Your task to perform on an android device: Open the stopwatch Image 0: 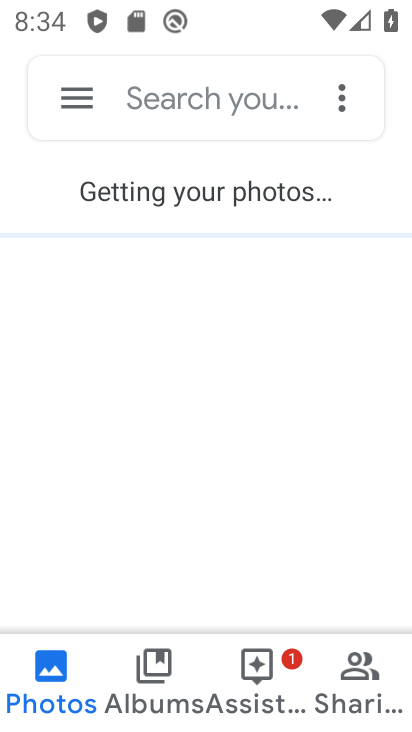
Step 0: press back button
Your task to perform on an android device: Open the stopwatch Image 1: 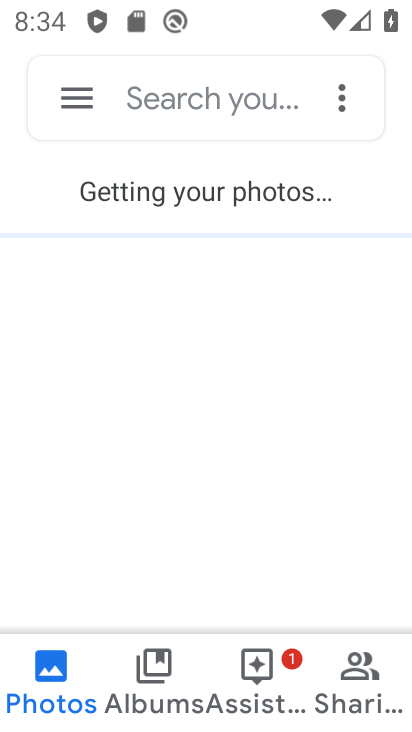
Step 1: press back button
Your task to perform on an android device: Open the stopwatch Image 2: 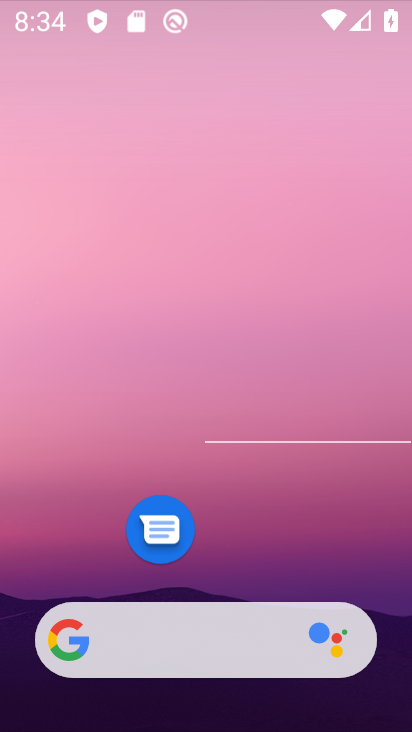
Step 2: press back button
Your task to perform on an android device: Open the stopwatch Image 3: 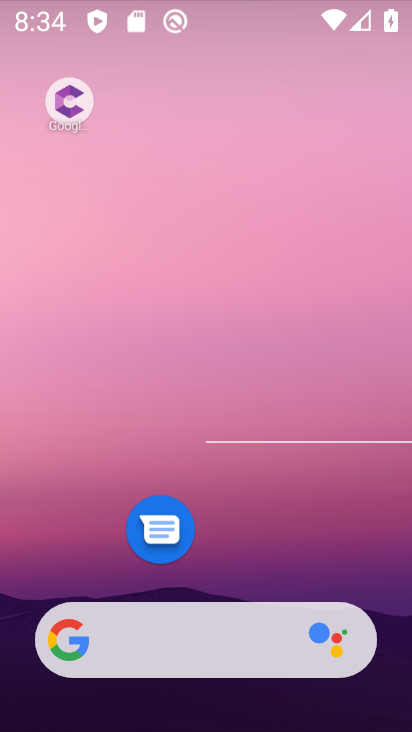
Step 3: click (254, 220)
Your task to perform on an android device: Open the stopwatch Image 4: 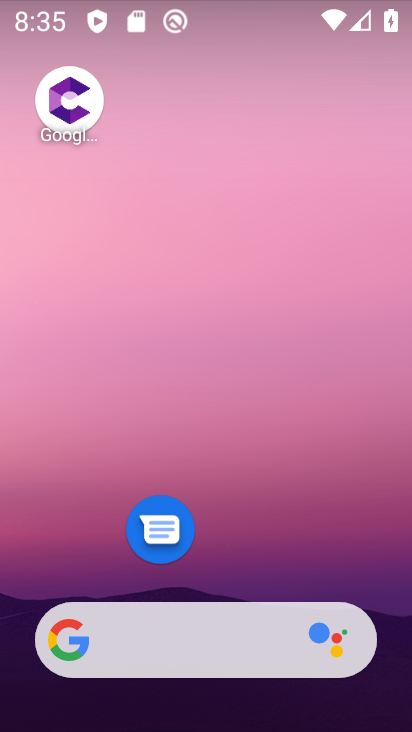
Step 4: drag from (343, 603) to (216, 83)
Your task to perform on an android device: Open the stopwatch Image 5: 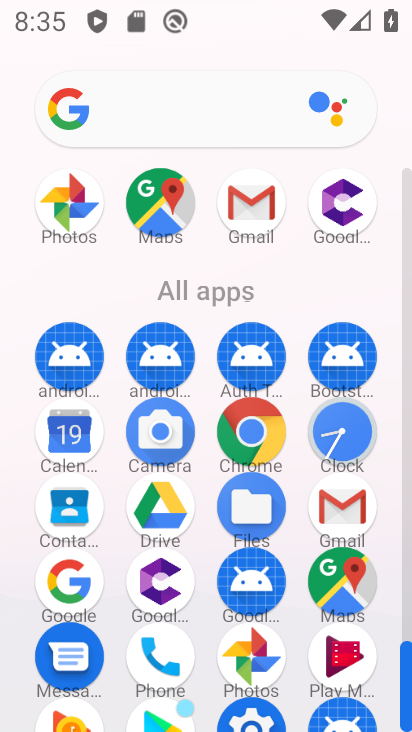
Step 5: click (326, 429)
Your task to perform on an android device: Open the stopwatch Image 6: 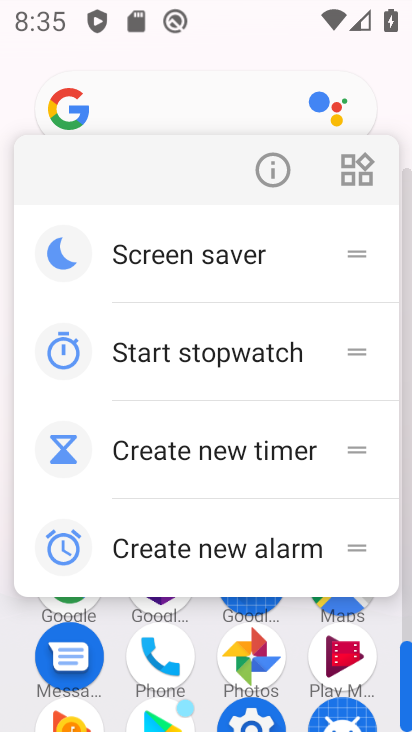
Step 6: click (171, 259)
Your task to perform on an android device: Open the stopwatch Image 7: 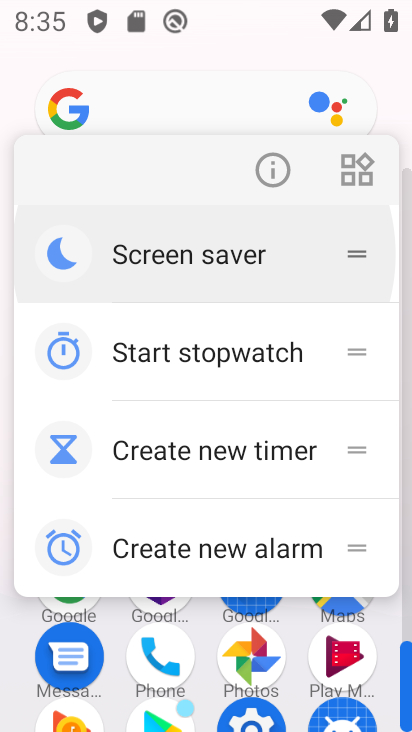
Step 7: click (171, 259)
Your task to perform on an android device: Open the stopwatch Image 8: 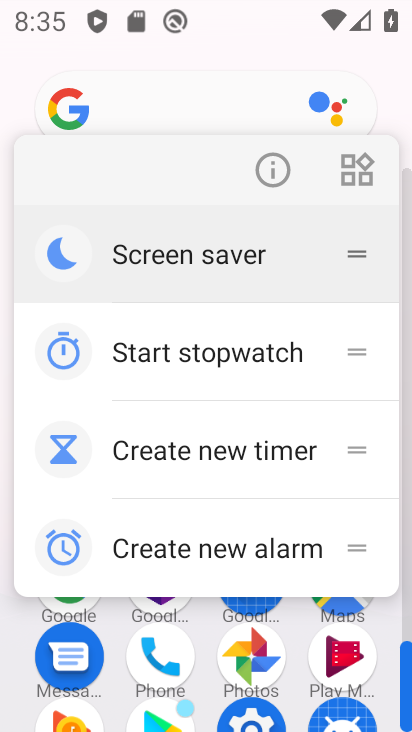
Step 8: click (171, 259)
Your task to perform on an android device: Open the stopwatch Image 9: 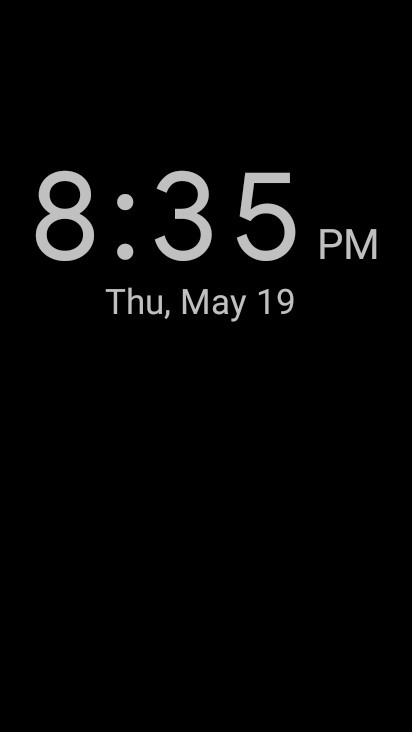
Step 9: press back button
Your task to perform on an android device: Open the stopwatch Image 10: 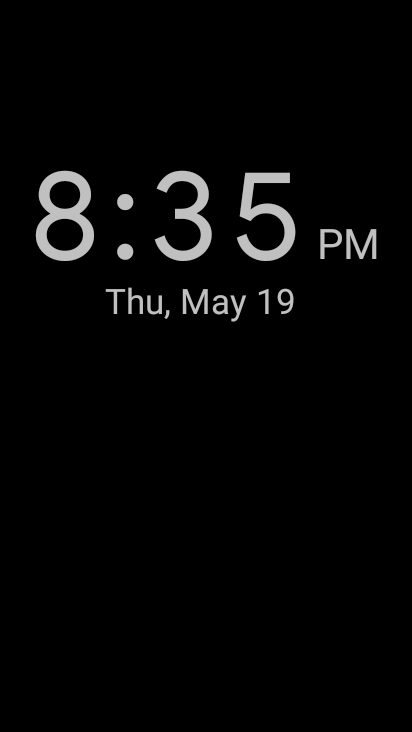
Step 10: press back button
Your task to perform on an android device: Open the stopwatch Image 11: 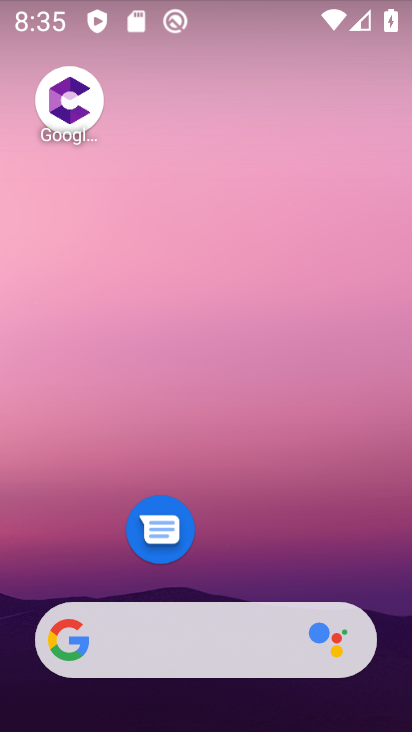
Step 11: drag from (405, 282) to (181, 167)
Your task to perform on an android device: Open the stopwatch Image 12: 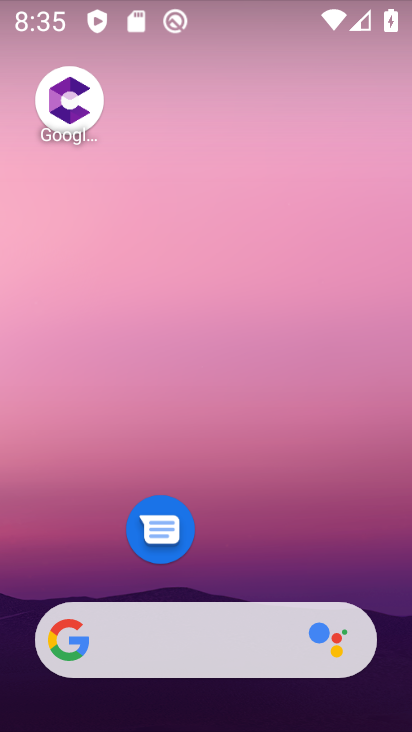
Step 12: drag from (273, 517) to (128, 0)
Your task to perform on an android device: Open the stopwatch Image 13: 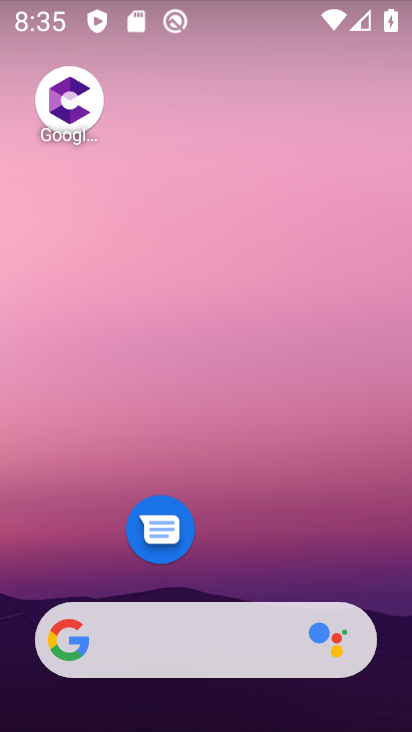
Step 13: drag from (230, 406) to (159, 13)
Your task to perform on an android device: Open the stopwatch Image 14: 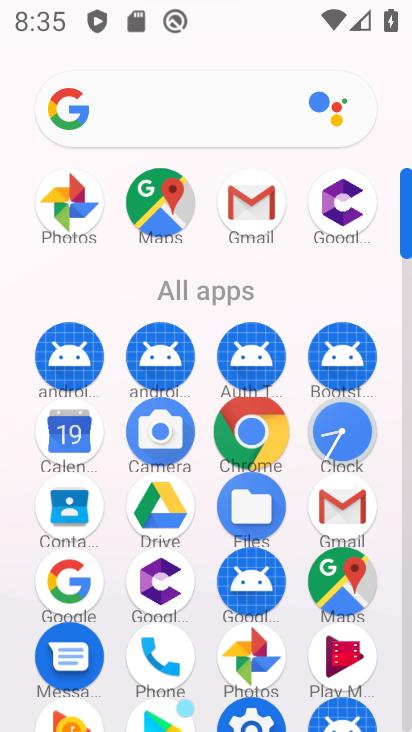
Step 14: drag from (202, 364) to (159, 93)
Your task to perform on an android device: Open the stopwatch Image 15: 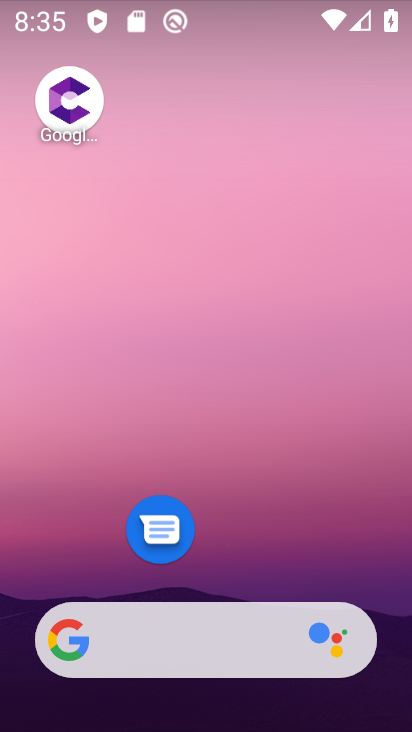
Step 15: click (154, 73)
Your task to perform on an android device: Open the stopwatch Image 16: 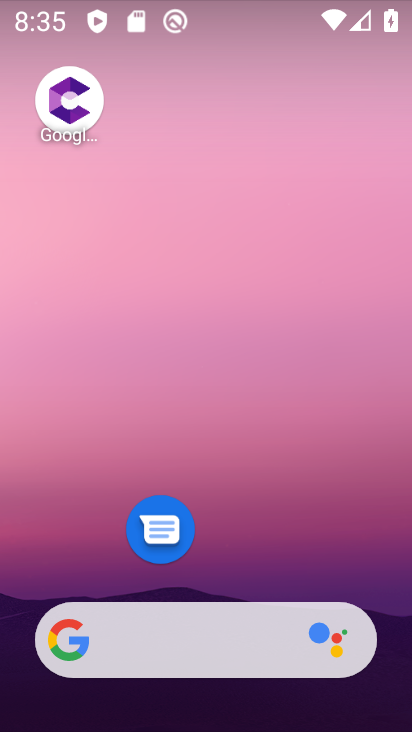
Step 16: click (241, 55)
Your task to perform on an android device: Open the stopwatch Image 17: 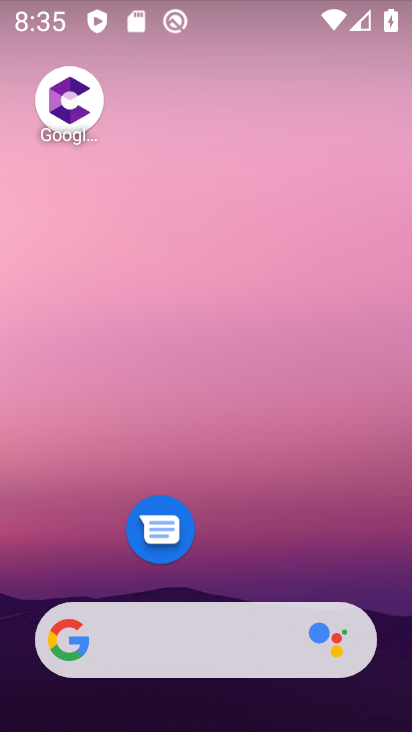
Step 17: drag from (310, 608) to (127, 95)
Your task to perform on an android device: Open the stopwatch Image 18: 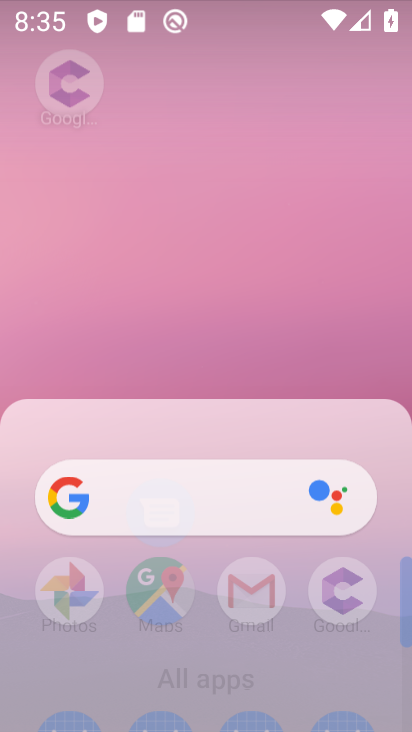
Step 18: drag from (237, 430) to (151, 14)
Your task to perform on an android device: Open the stopwatch Image 19: 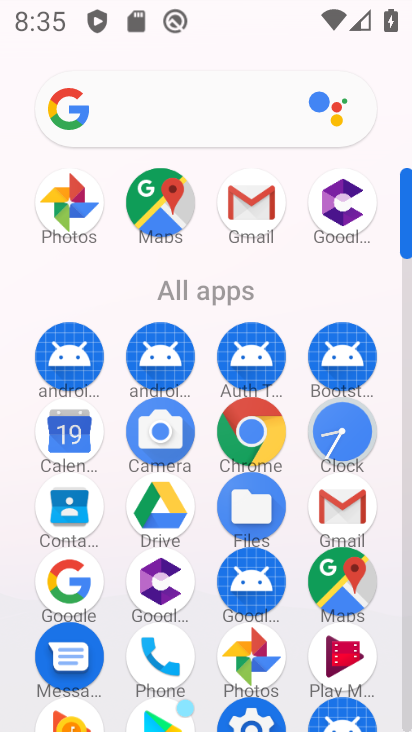
Step 19: click (351, 437)
Your task to perform on an android device: Open the stopwatch Image 20: 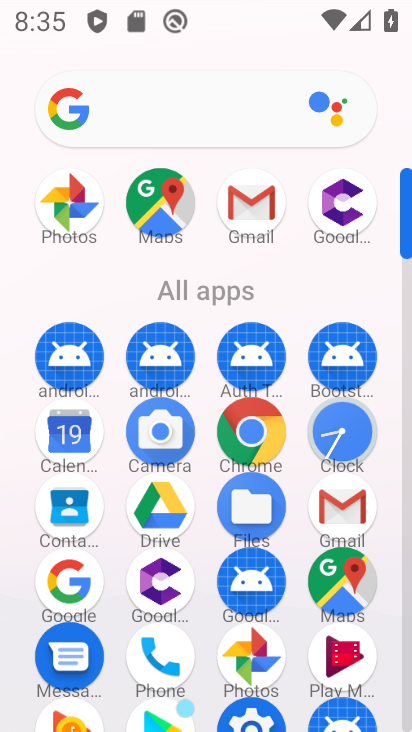
Step 20: click (352, 436)
Your task to perform on an android device: Open the stopwatch Image 21: 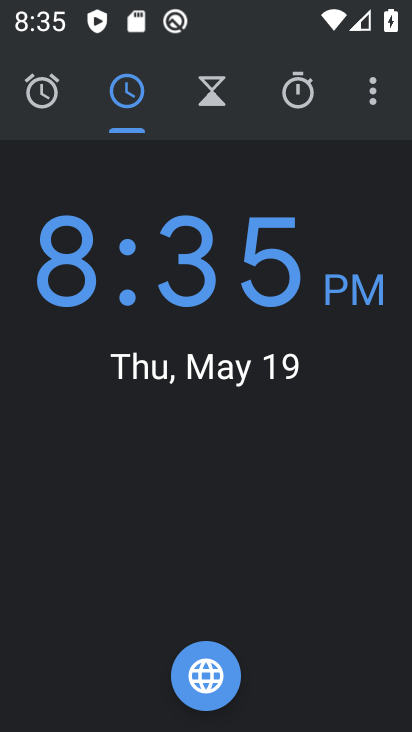
Step 21: click (376, 106)
Your task to perform on an android device: Open the stopwatch Image 22: 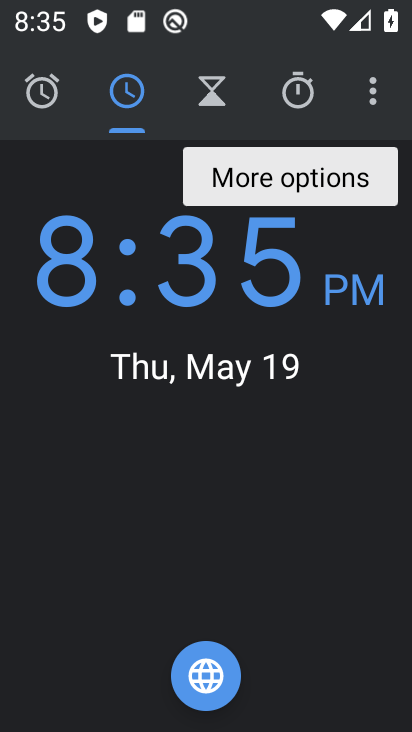
Step 22: click (330, 178)
Your task to perform on an android device: Open the stopwatch Image 23: 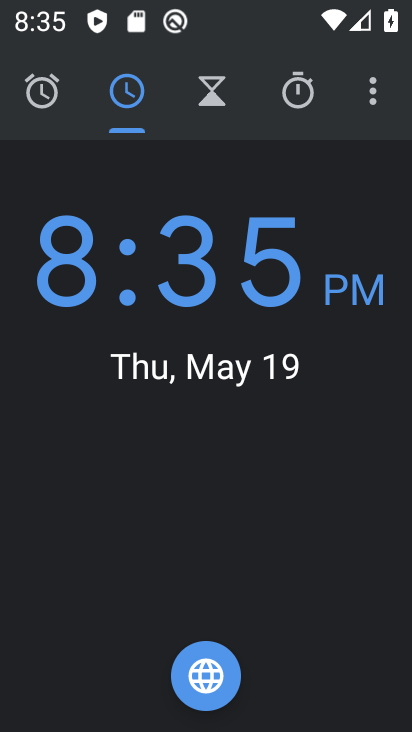
Step 23: click (293, 101)
Your task to perform on an android device: Open the stopwatch Image 24: 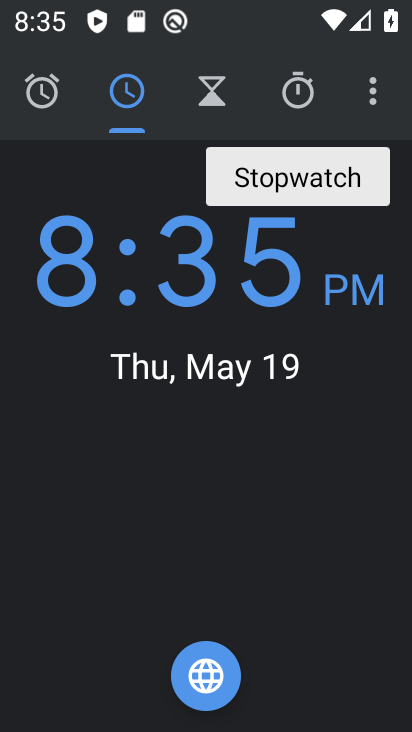
Step 24: click (279, 181)
Your task to perform on an android device: Open the stopwatch Image 25: 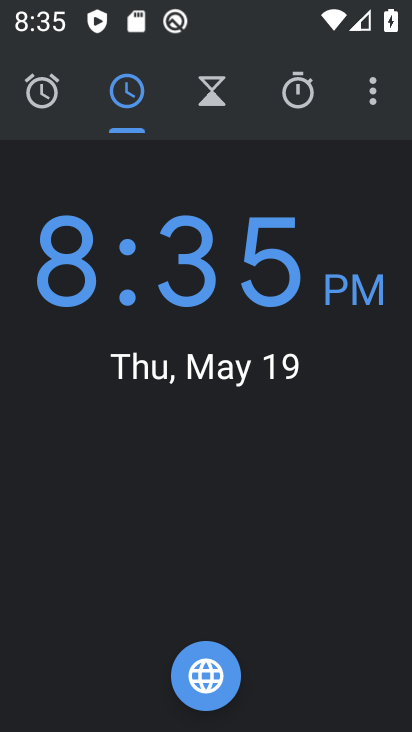
Step 25: click (303, 73)
Your task to perform on an android device: Open the stopwatch Image 26: 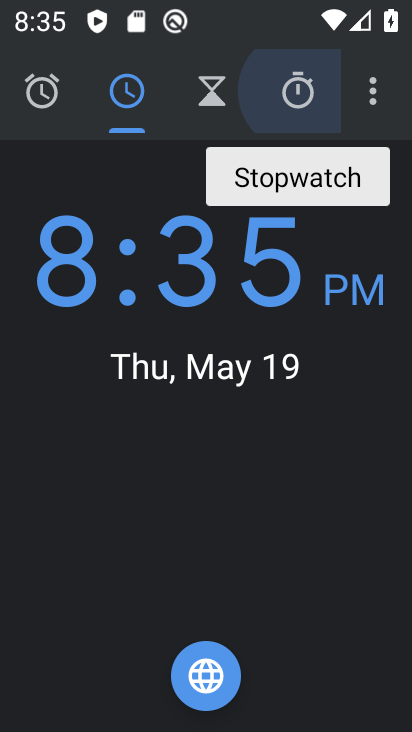
Step 26: click (302, 96)
Your task to perform on an android device: Open the stopwatch Image 27: 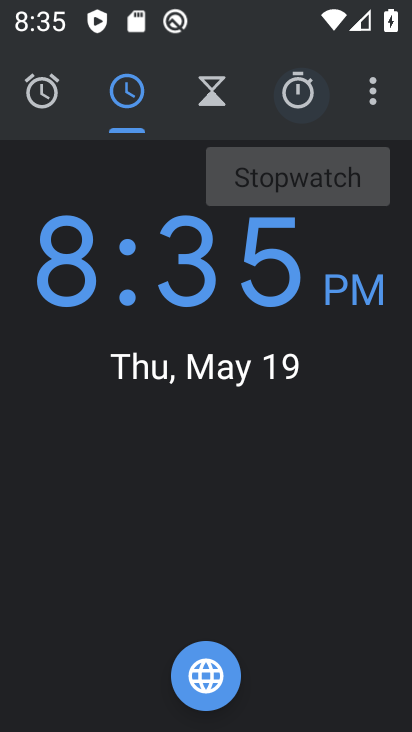
Step 27: click (302, 96)
Your task to perform on an android device: Open the stopwatch Image 28: 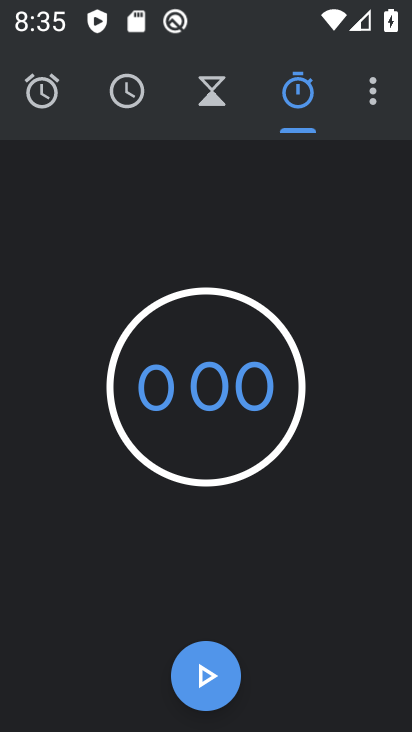
Step 28: click (194, 684)
Your task to perform on an android device: Open the stopwatch Image 29: 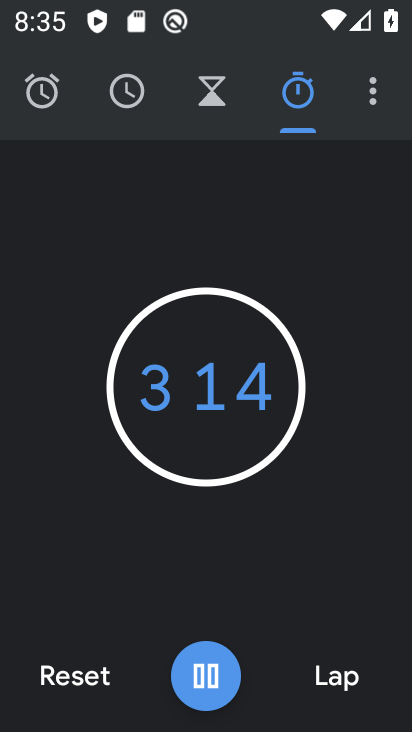
Step 29: click (210, 670)
Your task to perform on an android device: Open the stopwatch Image 30: 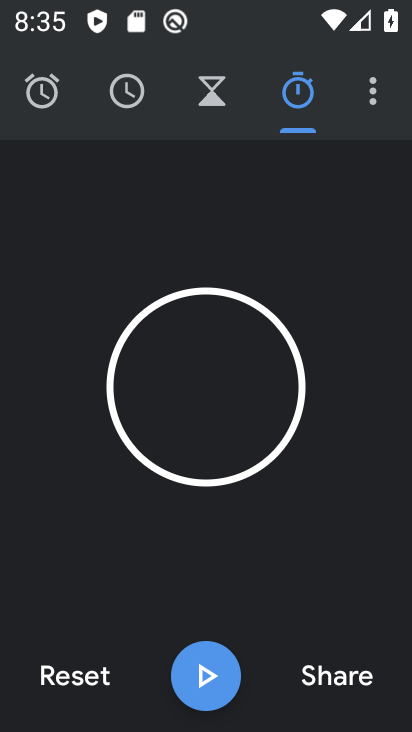
Step 30: task complete